Your task to perform on an android device: Go to Yahoo.com Image 0: 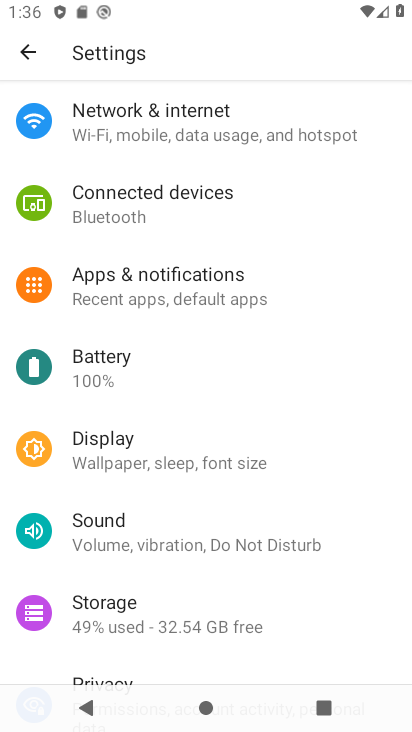
Step 0: press home button
Your task to perform on an android device: Go to Yahoo.com Image 1: 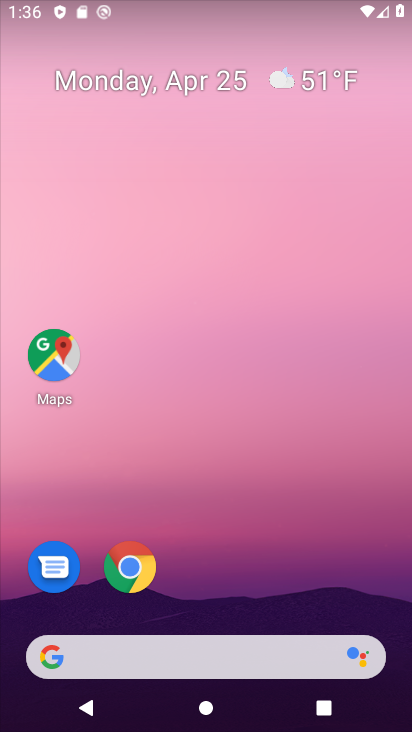
Step 1: drag from (294, 552) to (246, 123)
Your task to perform on an android device: Go to Yahoo.com Image 2: 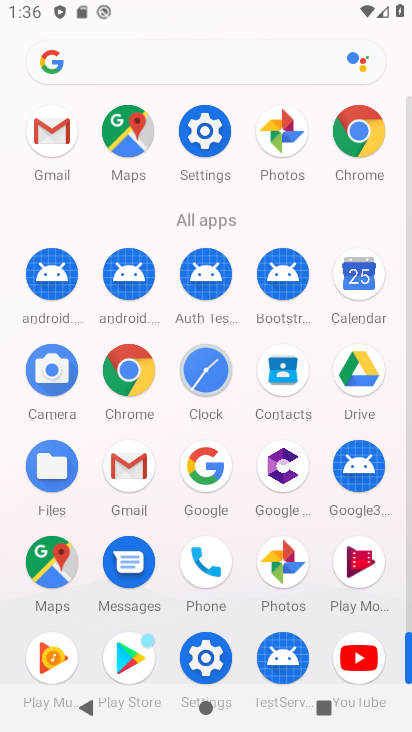
Step 2: click (143, 377)
Your task to perform on an android device: Go to Yahoo.com Image 3: 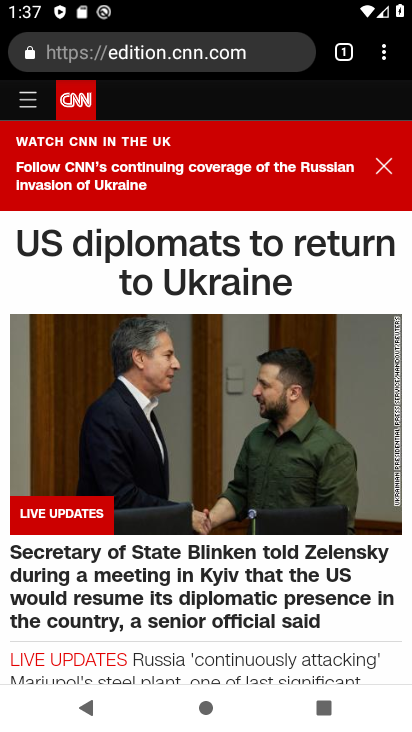
Step 3: click (353, 48)
Your task to perform on an android device: Go to Yahoo.com Image 4: 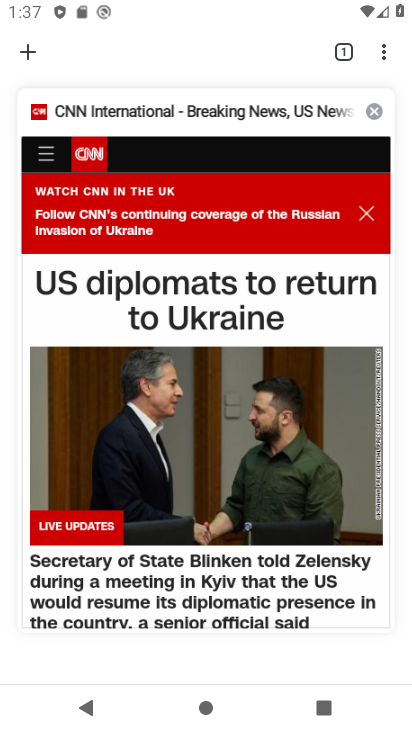
Step 4: click (377, 106)
Your task to perform on an android device: Go to Yahoo.com Image 5: 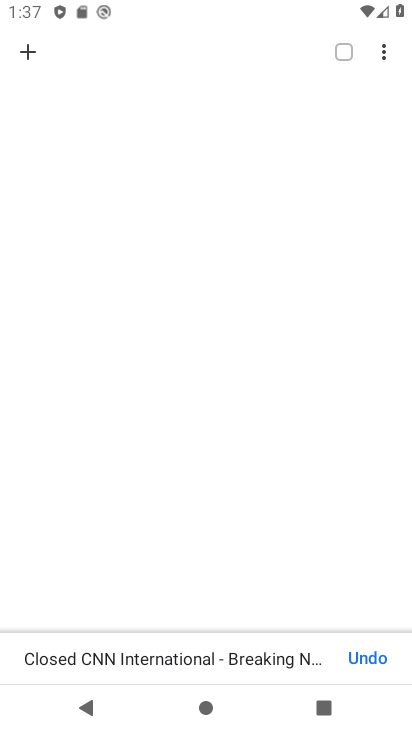
Step 5: click (24, 48)
Your task to perform on an android device: Go to Yahoo.com Image 6: 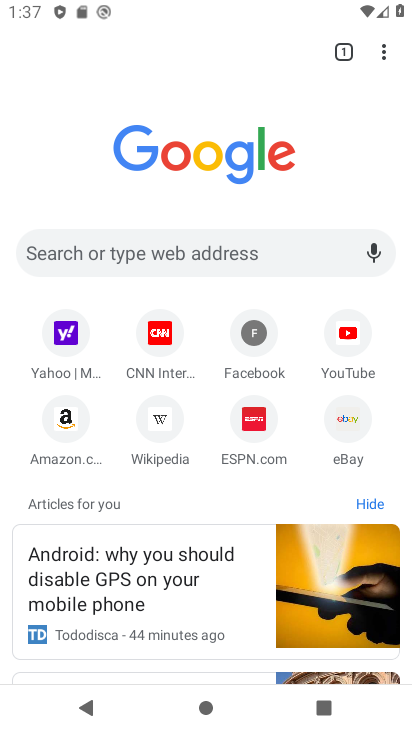
Step 6: click (65, 332)
Your task to perform on an android device: Go to Yahoo.com Image 7: 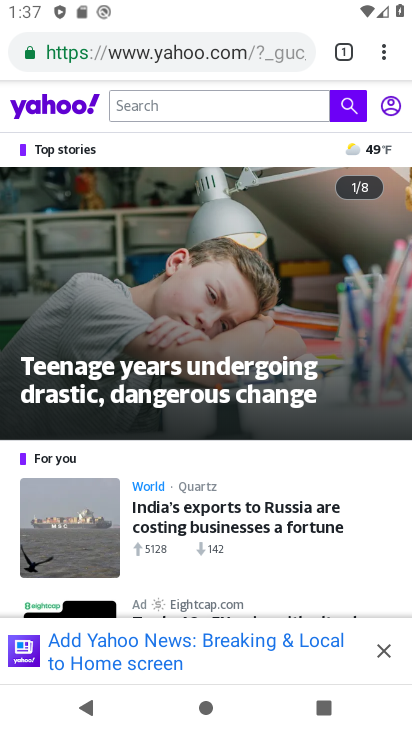
Step 7: task complete